Your task to perform on an android device: turn on the 12-hour format for clock Image 0: 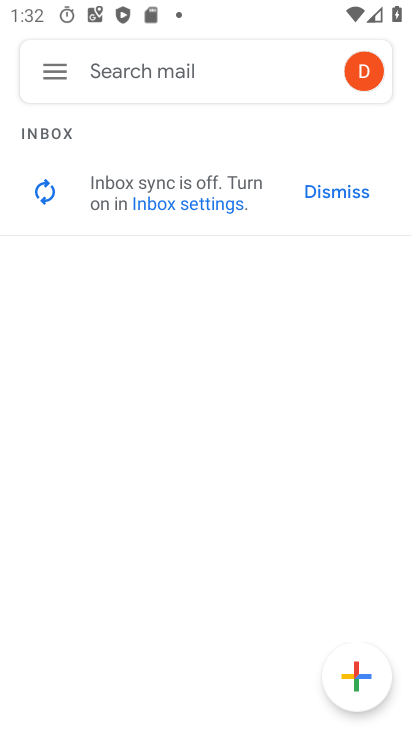
Step 0: press home button
Your task to perform on an android device: turn on the 12-hour format for clock Image 1: 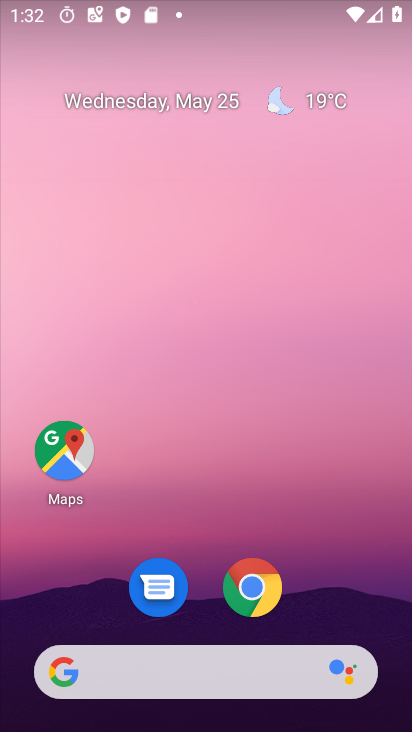
Step 1: drag from (215, 718) to (204, 120)
Your task to perform on an android device: turn on the 12-hour format for clock Image 2: 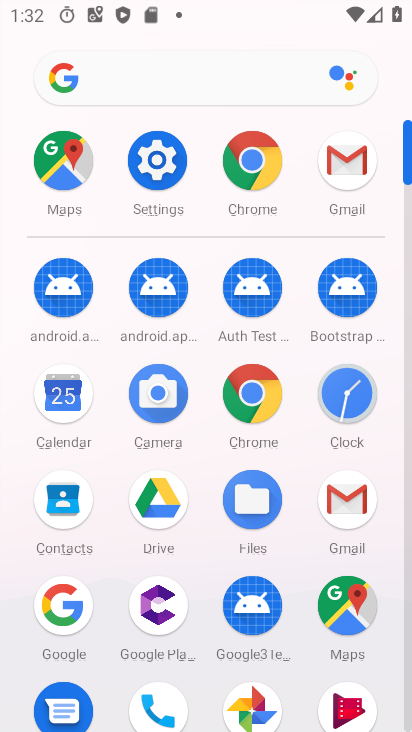
Step 2: click (349, 394)
Your task to perform on an android device: turn on the 12-hour format for clock Image 3: 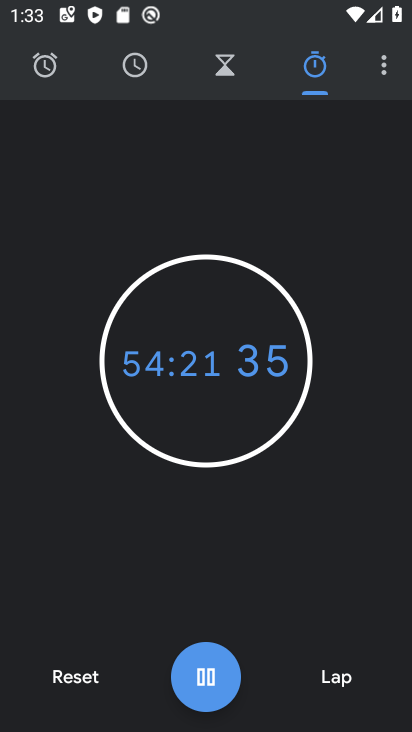
Step 3: click (384, 73)
Your task to perform on an android device: turn on the 12-hour format for clock Image 4: 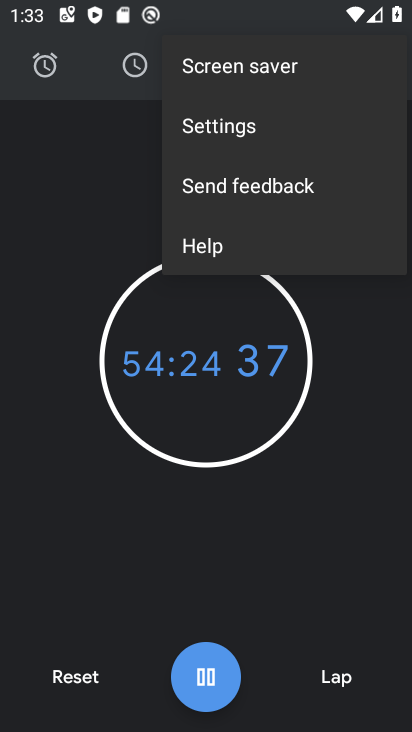
Step 4: click (219, 130)
Your task to perform on an android device: turn on the 12-hour format for clock Image 5: 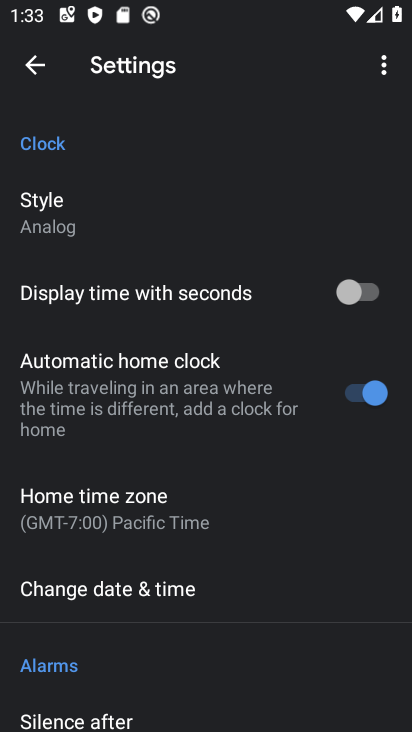
Step 5: drag from (135, 572) to (135, 304)
Your task to perform on an android device: turn on the 12-hour format for clock Image 6: 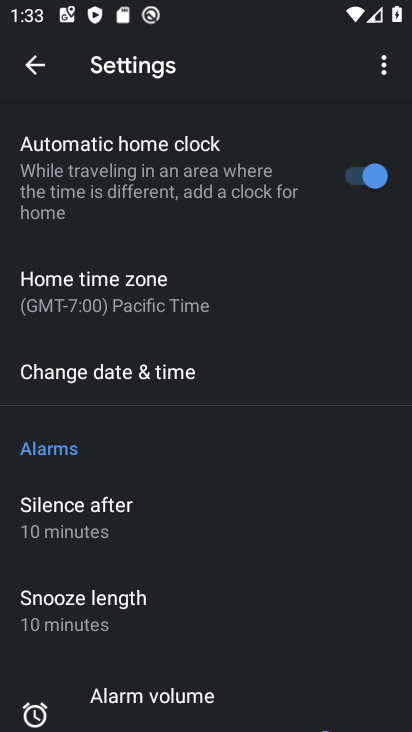
Step 6: drag from (105, 560) to (115, 273)
Your task to perform on an android device: turn on the 12-hour format for clock Image 7: 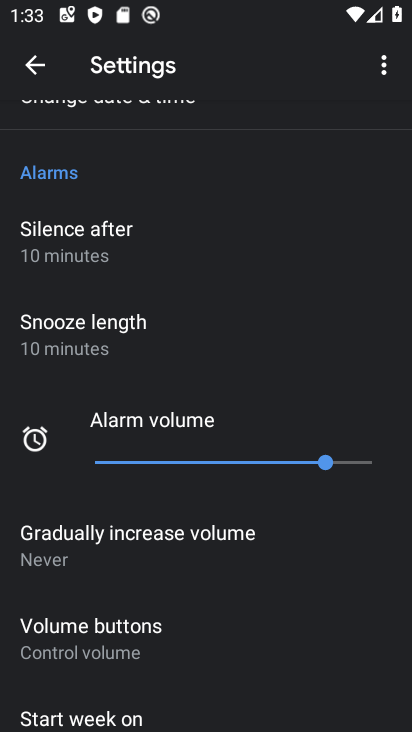
Step 7: drag from (158, 208) to (164, 654)
Your task to perform on an android device: turn on the 12-hour format for clock Image 8: 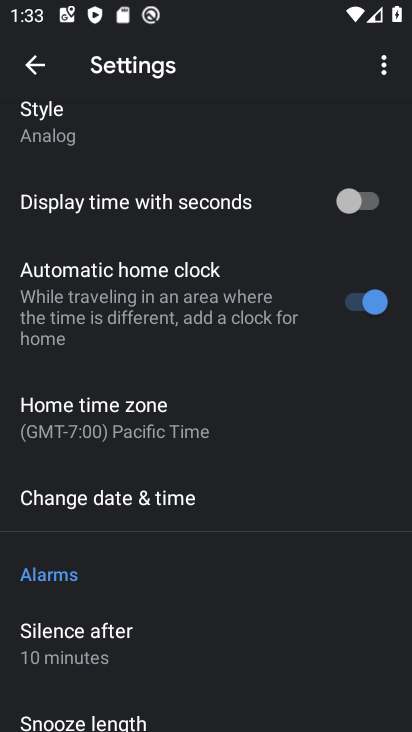
Step 8: drag from (158, 172) to (150, 561)
Your task to perform on an android device: turn on the 12-hour format for clock Image 9: 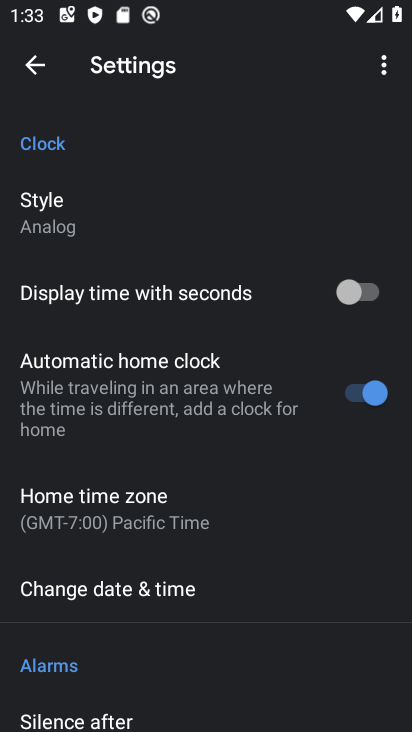
Step 9: click (117, 593)
Your task to perform on an android device: turn on the 12-hour format for clock Image 10: 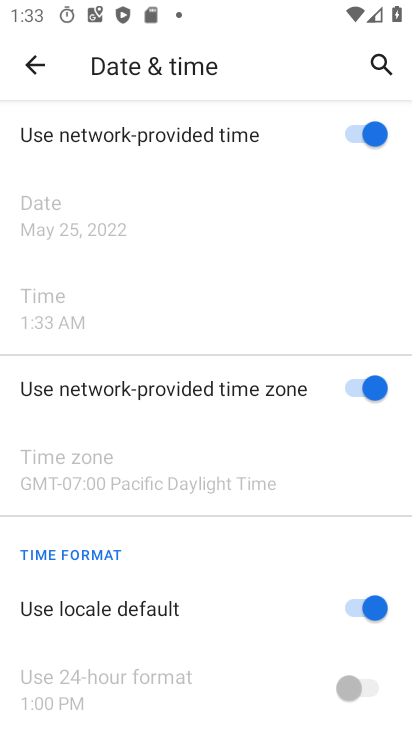
Step 10: task complete